Your task to perform on an android device: clear all cookies in the chrome app Image 0: 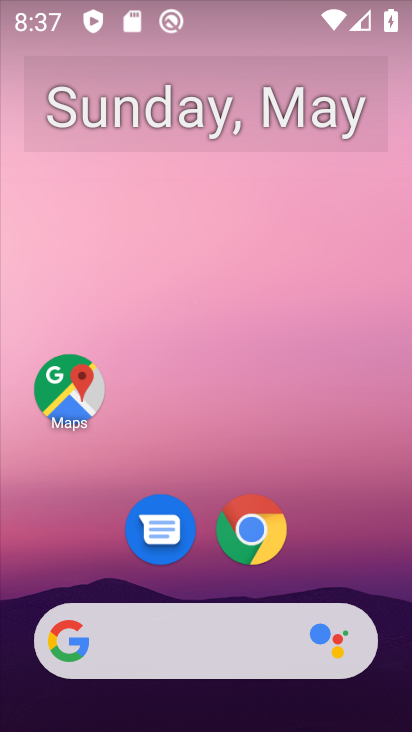
Step 0: click (254, 521)
Your task to perform on an android device: clear all cookies in the chrome app Image 1: 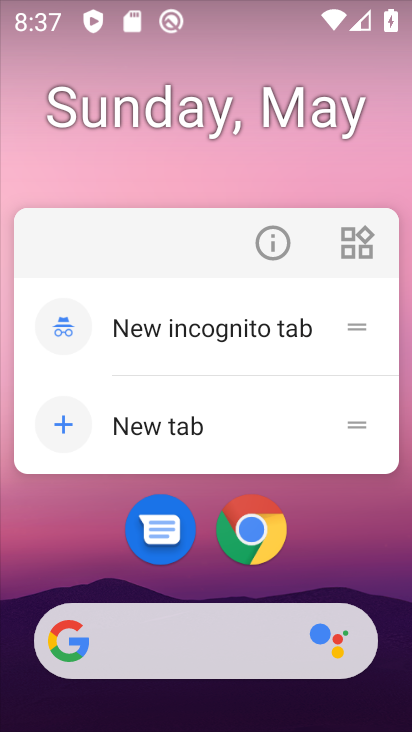
Step 1: click (254, 521)
Your task to perform on an android device: clear all cookies in the chrome app Image 2: 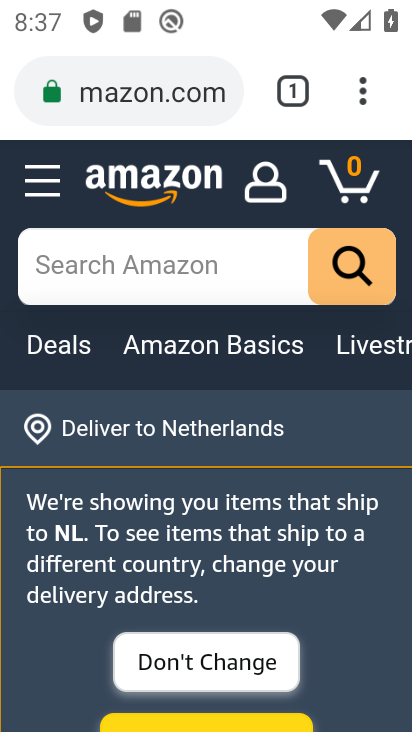
Step 2: click (358, 83)
Your task to perform on an android device: clear all cookies in the chrome app Image 3: 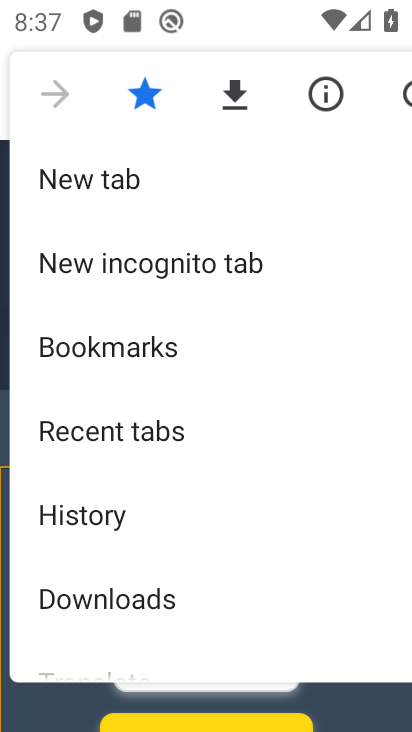
Step 3: drag from (282, 636) to (310, 127)
Your task to perform on an android device: clear all cookies in the chrome app Image 4: 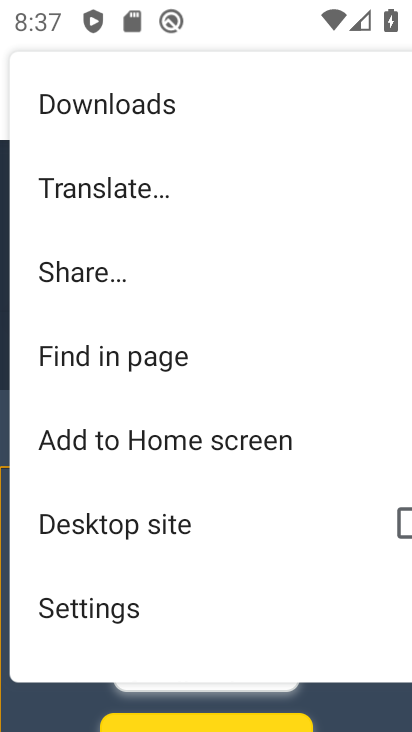
Step 4: click (114, 613)
Your task to perform on an android device: clear all cookies in the chrome app Image 5: 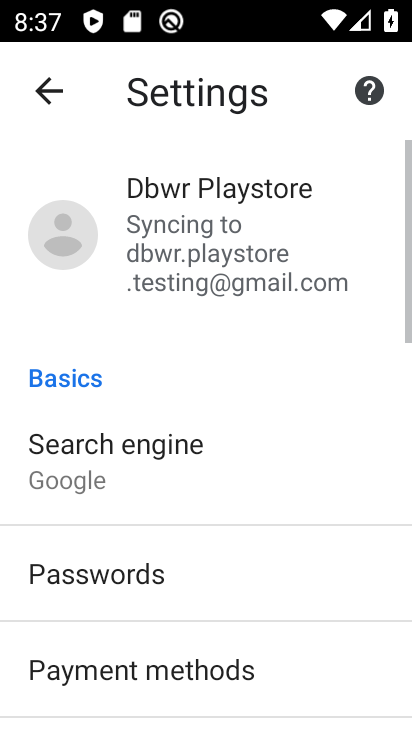
Step 5: drag from (183, 582) to (225, 219)
Your task to perform on an android device: clear all cookies in the chrome app Image 6: 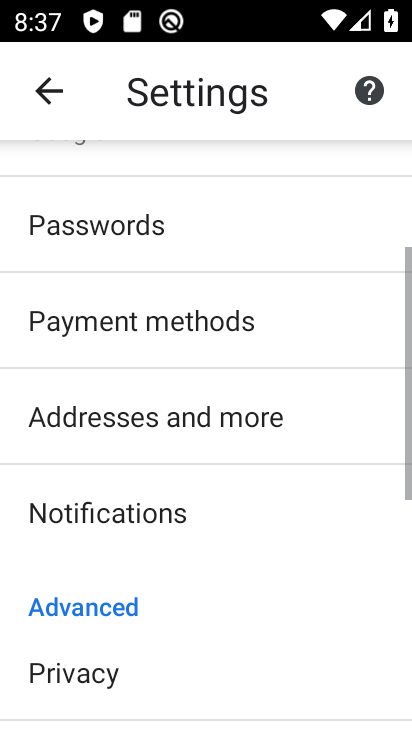
Step 6: drag from (206, 637) to (203, 416)
Your task to perform on an android device: clear all cookies in the chrome app Image 7: 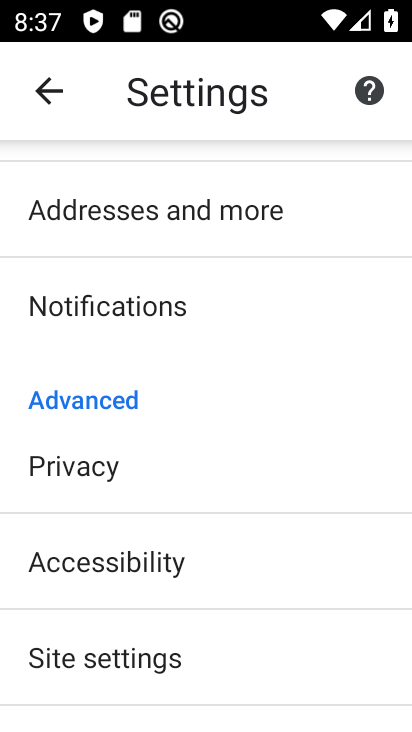
Step 7: click (145, 479)
Your task to perform on an android device: clear all cookies in the chrome app Image 8: 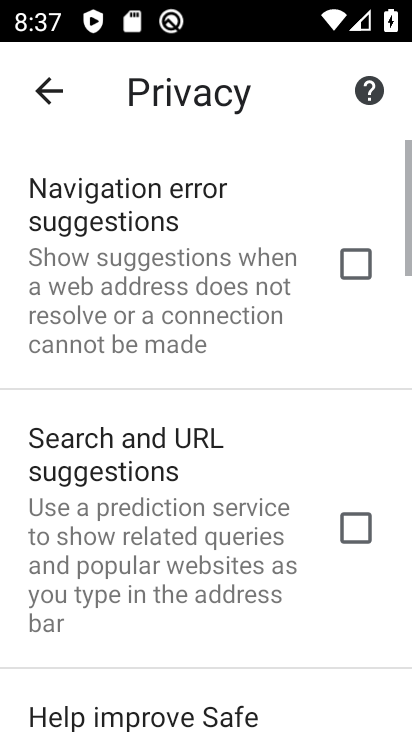
Step 8: drag from (259, 628) to (276, 147)
Your task to perform on an android device: clear all cookies in the chrome app Image 9: 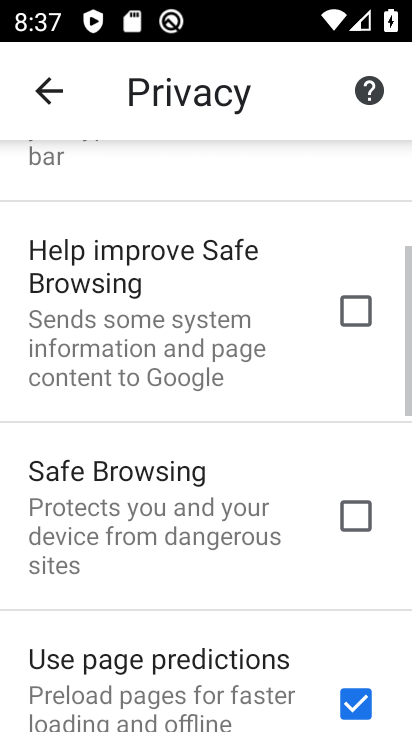
Step 9: drag from (233, 579) to (183, 117)
Your task to perform on an android device: clear all cookies in the chrome app Image 10: 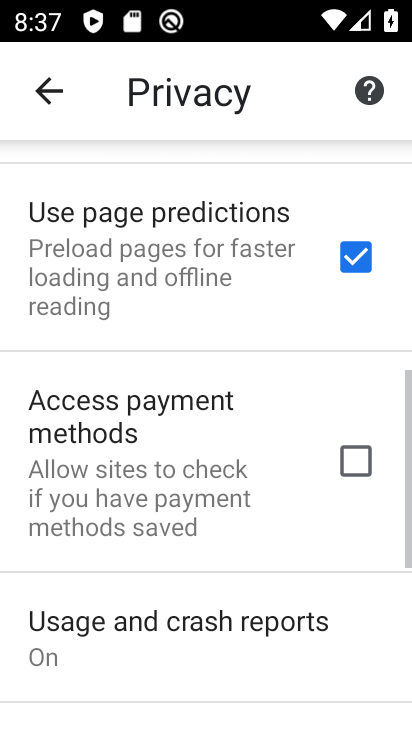
Step 10: drag from (165, 572) to (103, 143)
Your task to perform on an android device: clear all cookies in the chrome app Image 11: 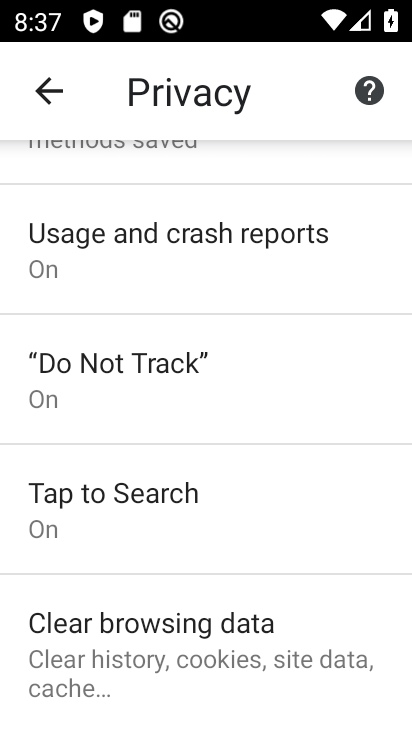
Step 11: click (114, 660)
Your task to perform on an android device: clear all cookies in the chrome app Image 12: 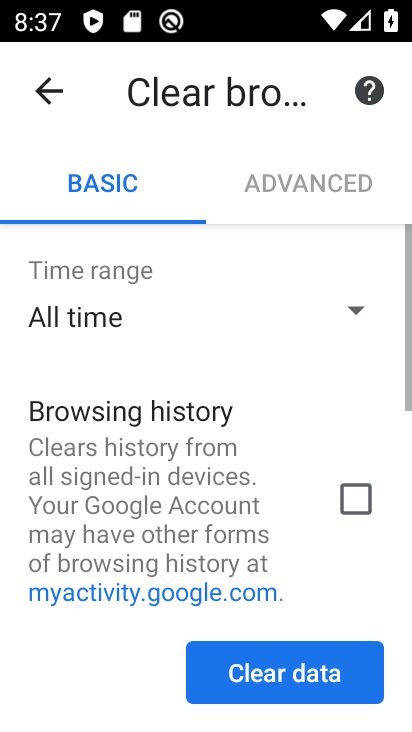
Step 12: drag from (259, 519) to (282, 84)
Your task to perform on an android device: clear all cookies in the chrome app Image 13: 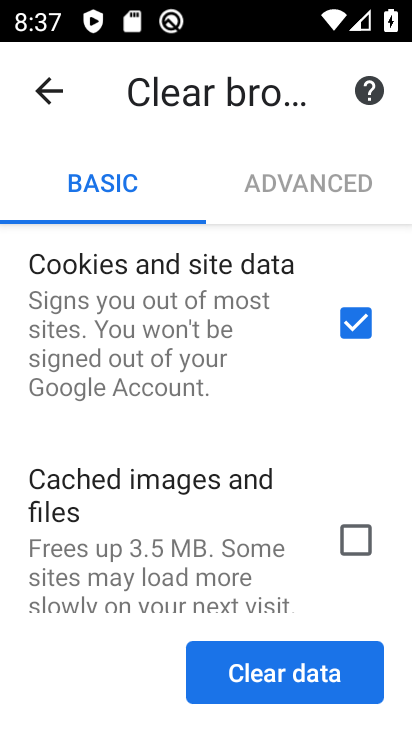
Step 13: click (264, 628)
Your task to perform on an android device: clear all cookies in the chrome app Image 14: 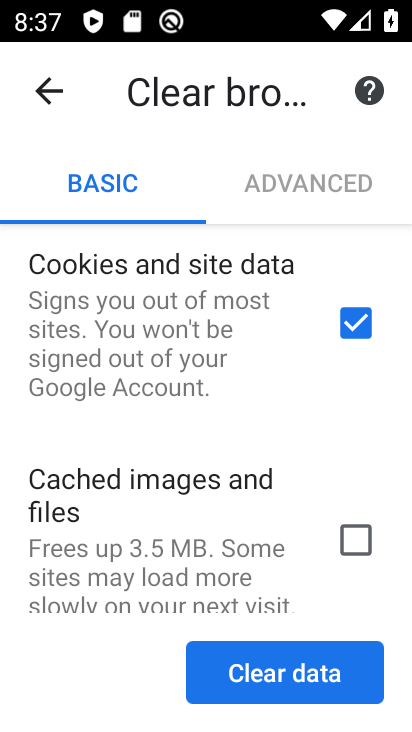
Step 14: click (280, 672)
Your task to perform on an android device: clear all cookies in the chrome app Image 15: 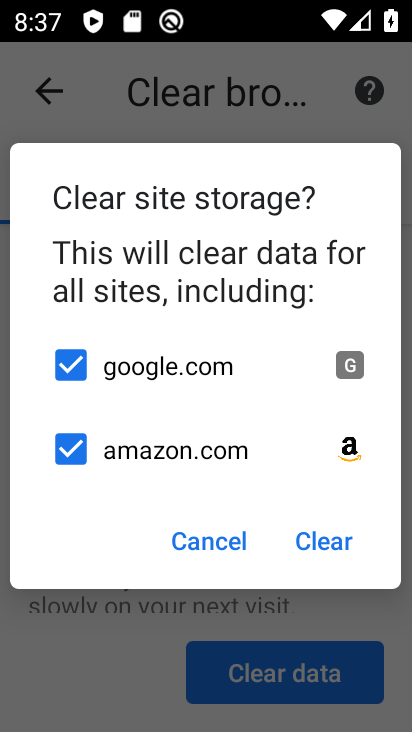
Step 15: click (341, 537)
Your task to perform on an android device: clear all cookies in the chrome app Image 16: 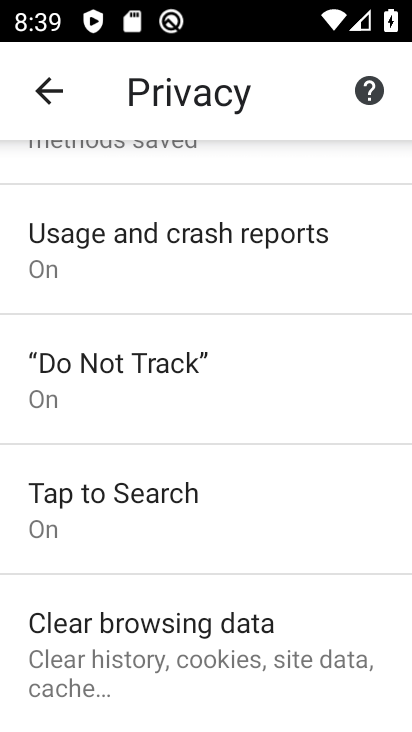
Step 16: task complete